Your task to perform on an android device: install app "Google News" Image 0: 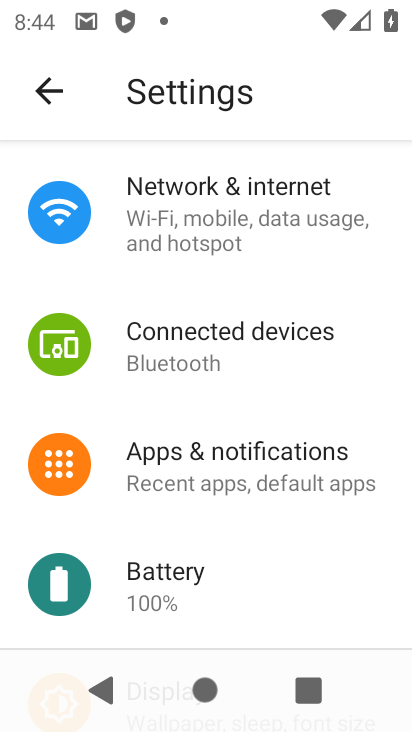
Step 0: press back button
Your task to perform on an android device: install app "Google News" Image 1: 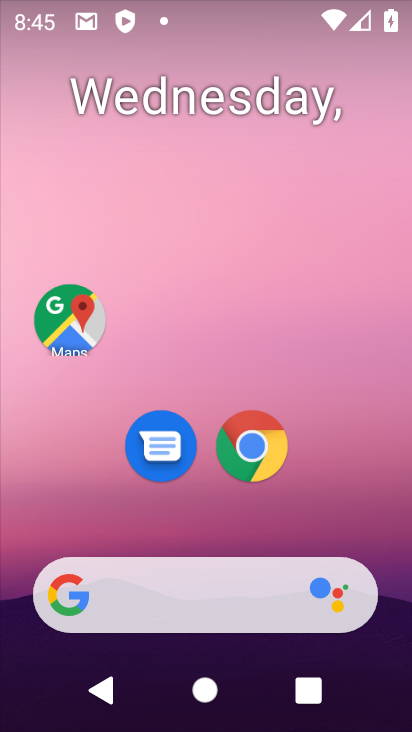
Step 1: click (197, 610)
Your task to perform on an android device: install app "Google News" Image 2: 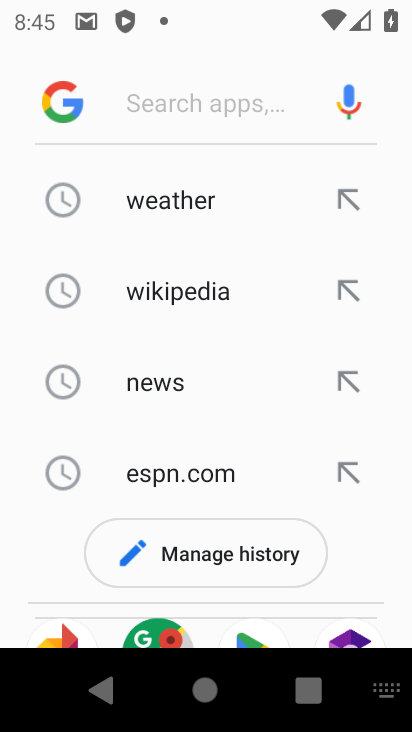
Step 2: press back button
Your task to perform on an android device: install app "Google News" Image 3: 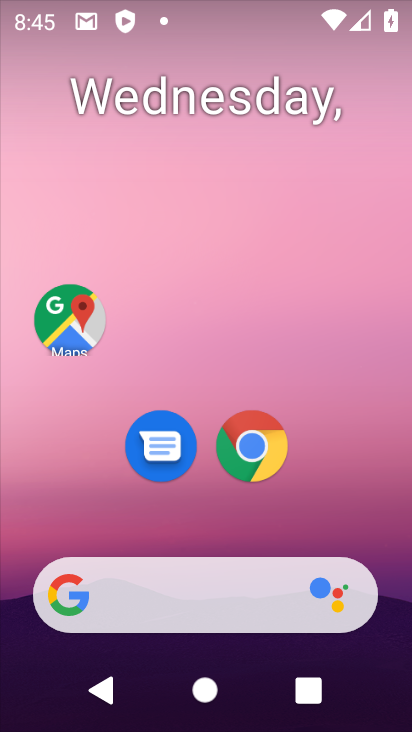
Step 3: drag from (217, 439) to (230, 7)
Your task to perform on an android device: install app "Google News" Image 4: 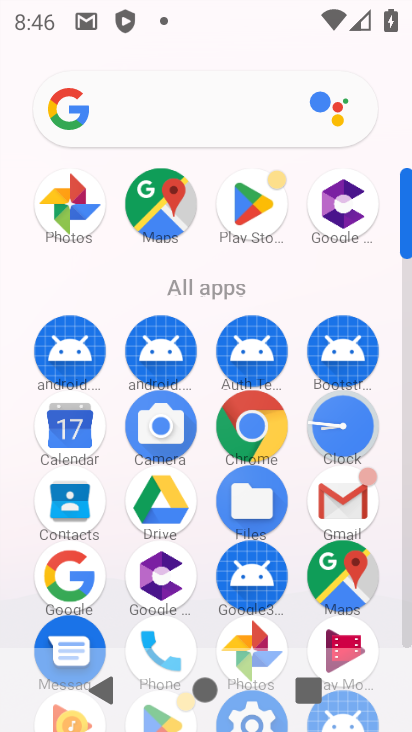
Step 4: click (254, 202)
Your task to perform on an android device: install app "Google News" Image 5: 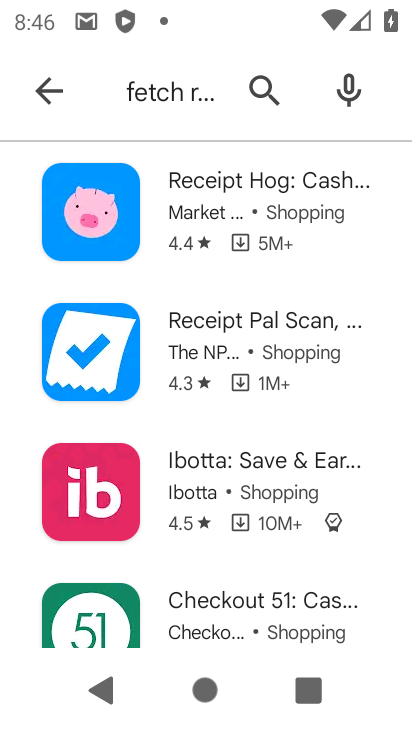
Step 5: click (274, 89)
Your task to perform on an android device: install app "Google News" Image 6: 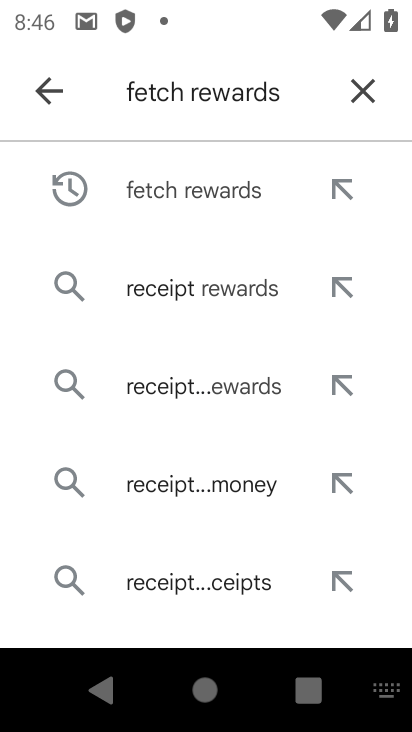
Step 6: click (373, 91)
Your task to perform on an android device: install app "Google News" Image 7: 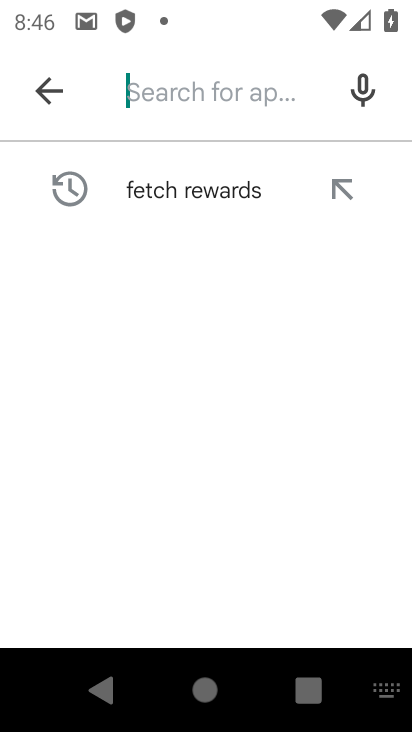
Step 7: click (172, 93)
Your task to perform on an android device: install app "Google News" Image 8: 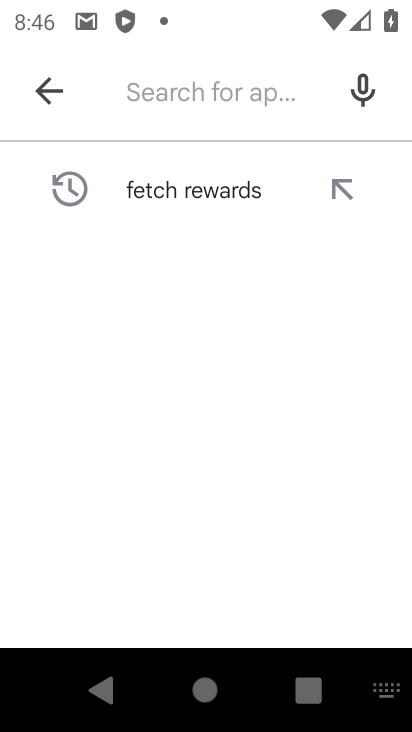
Step 8: type "google news"
Your task to perform on an android device: install app "Google News" Image 9: 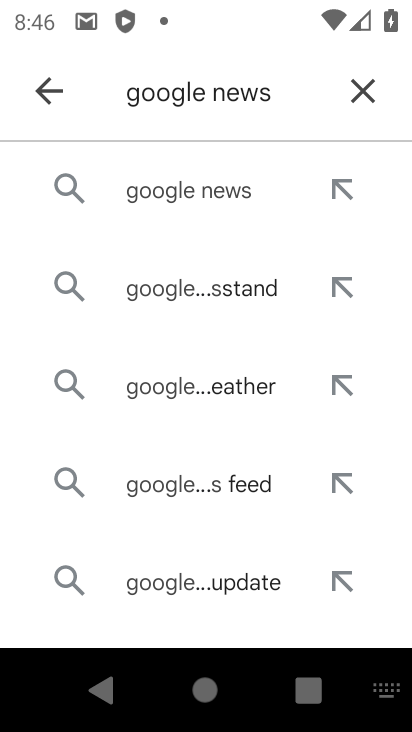
Step 9: click (173, 196)
Your task to perform on an android device: install app "Google News" Image 10: 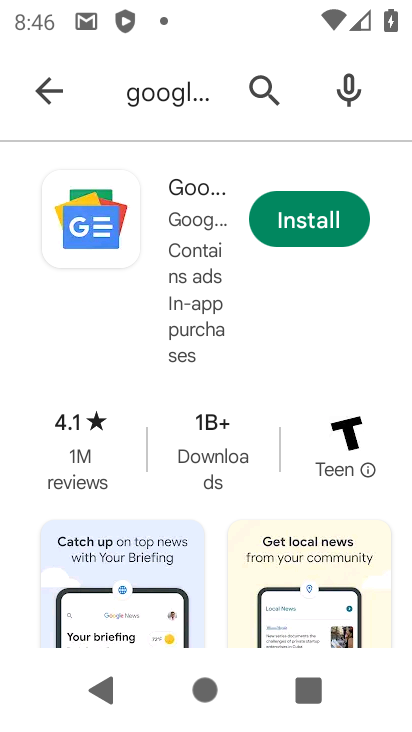
Step 10: click (197, 199)
Your task to perform on an android device: install app "Google News" Image 11: 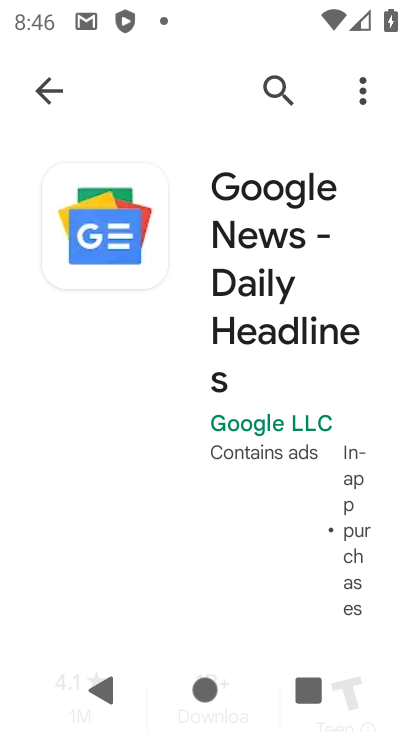
Step 11: drag from (234, 559) to (249, 82)
Your task to perform on an android device: install app "Google News" Image 12: 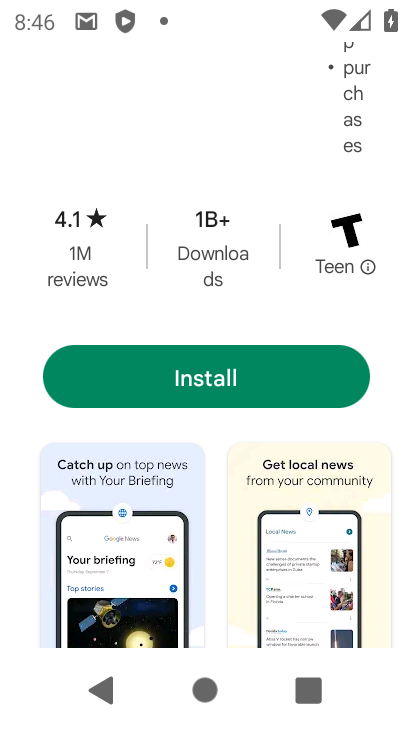
Step 12: click (194, 378)
Your task to perform on an android device: install app "Google News" Image 13: 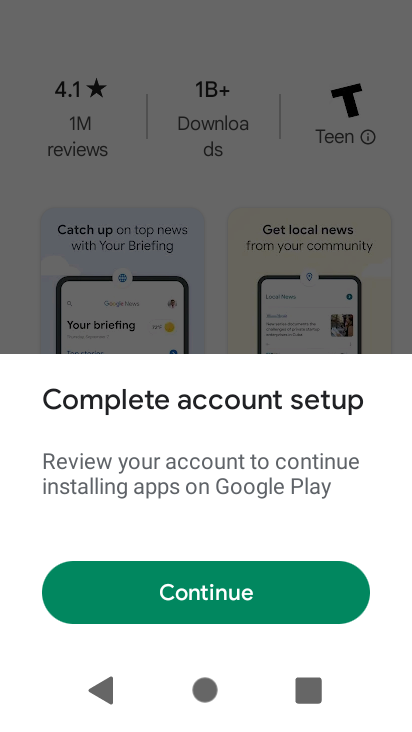
Step 13: click (220, 584)
Your task to perform on an android device: install app "Google News" Image 14: 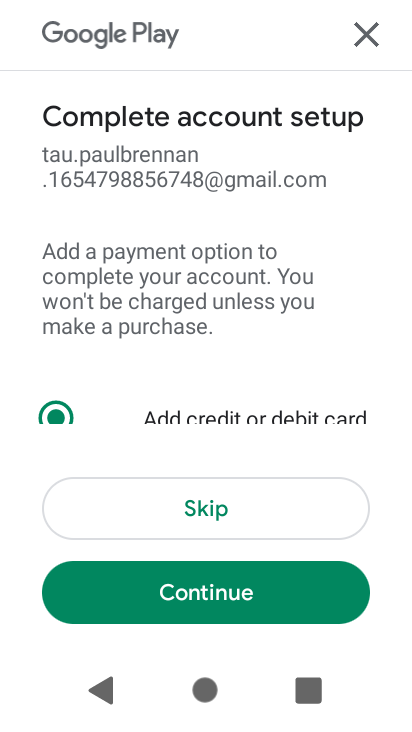
Step 14: click (184, 503)
Your task to perform on an android device: install app "Google News" Image 15: 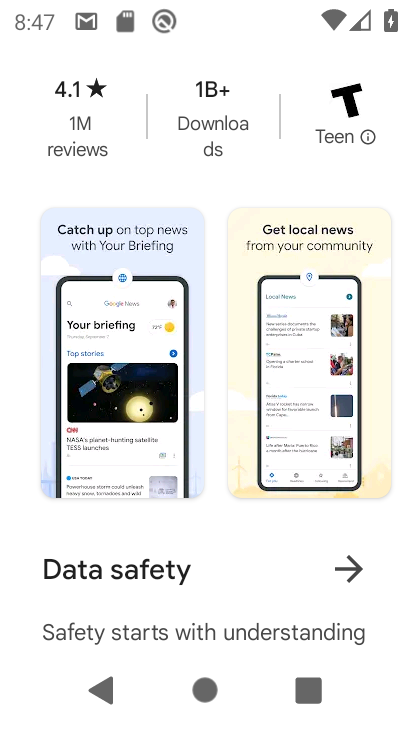
Step 15: task complete